Your task to perform on an android device: Open Yahoo.com Image 0: 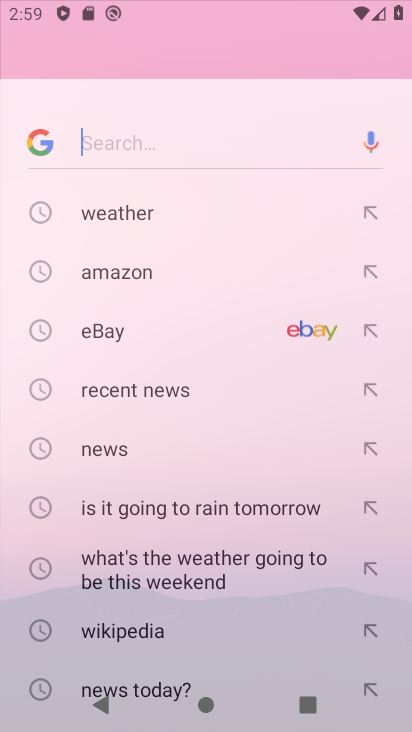
Step 0: press home button
Your task to perform on an android device: Open Yahoo.com Image 1: 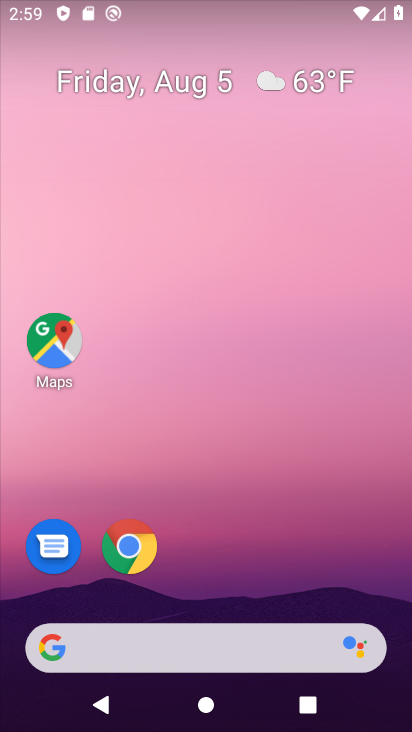
Step 1: drag from (298, 551) to (300, 135)
Your task to perform on an android device: Open Yahoo.com Image 2: 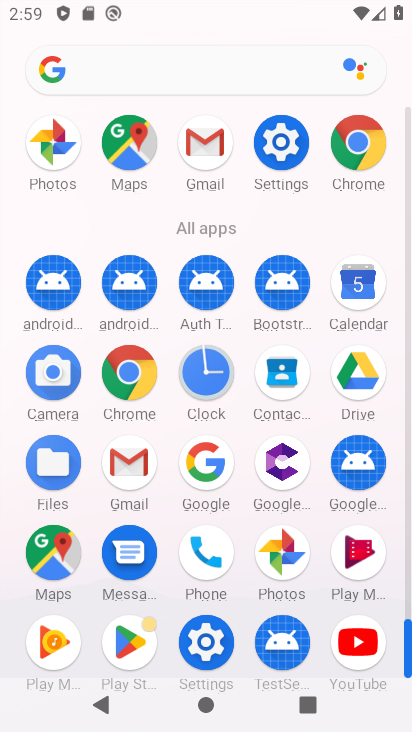
Step 2: click (131, 369)
Your task to perform on an android device: Open Yahoo.com Image 3: 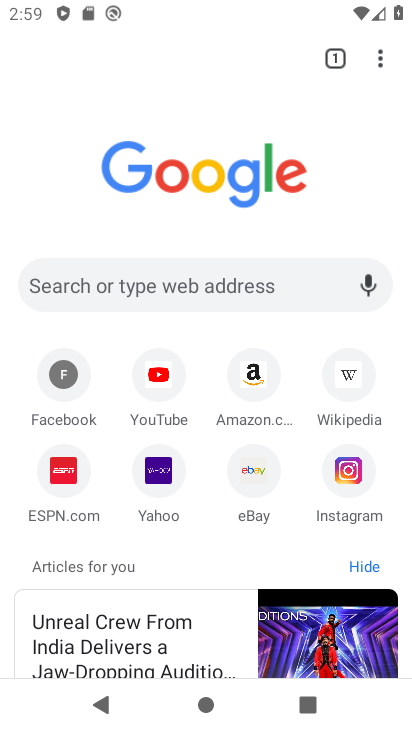
Step 3: click (268, 283)
Your task to perform on an android device: Open Yahoo.com Image 4: 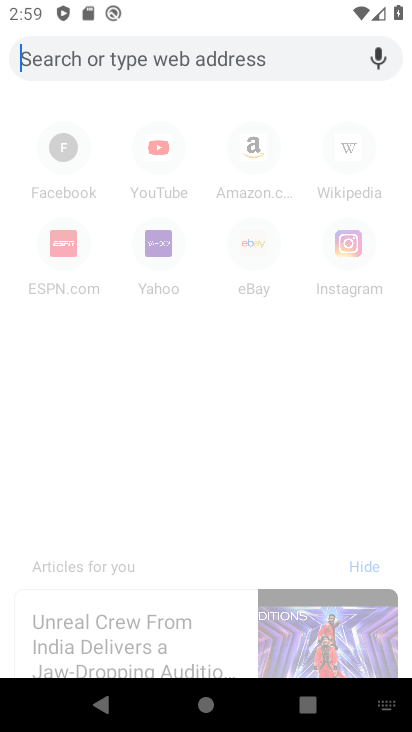
Step 4: type "yahoo.com"
Your task to perform on an android device: Open Yahoo.com Image 5: 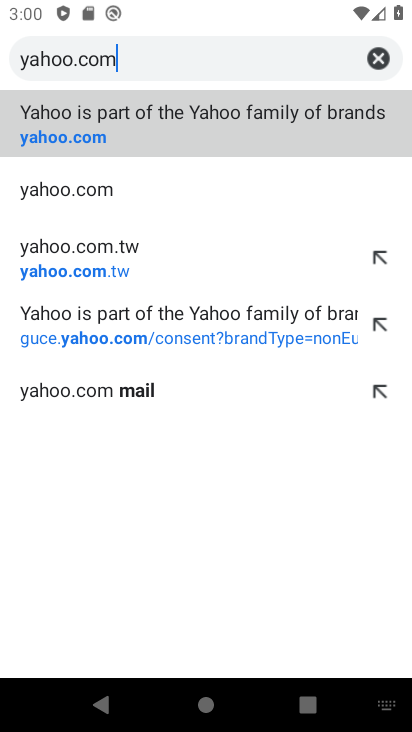
Step 5: click (174, 107)
Your task to perform on an android device: Open Yahoo.com Image 6: 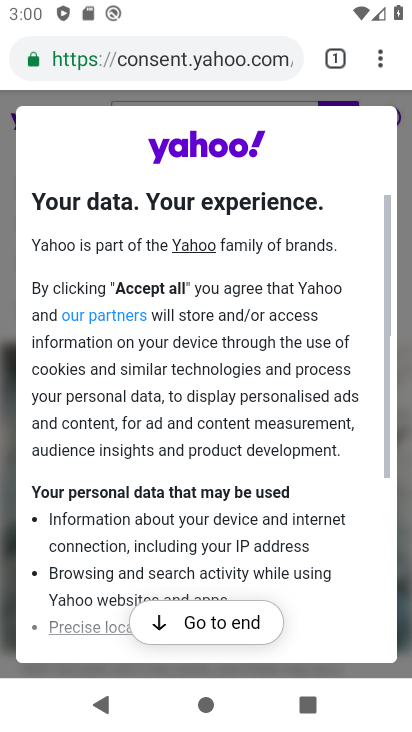
Step 6: task complete